Your task to perform on an android device: turn on location history Image 0: 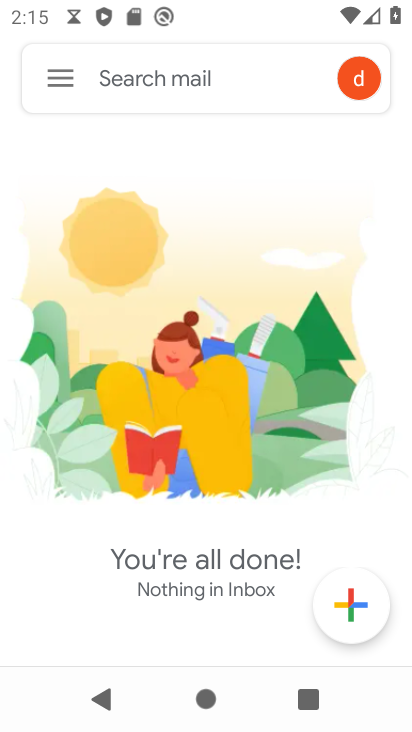
Step 0: press home button
Your task to perform on an android device: turn on location history Image 1: 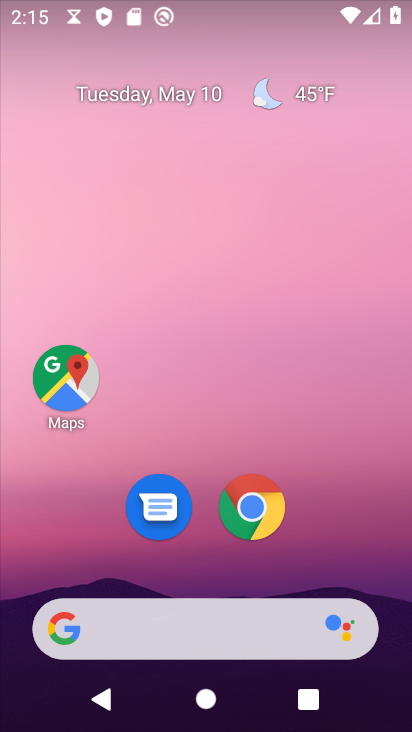
Step 1: drag from (312, 546) to (160, 192)
Your task to perform on an android device: turn on location history Image 2: 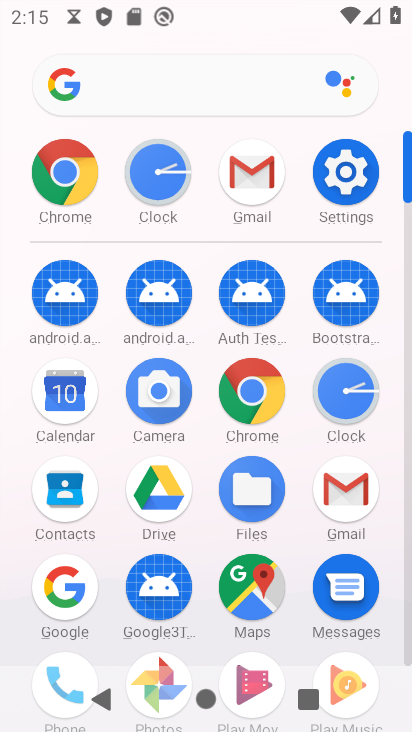
Step 2: click (345, 170)
Your task to perform on an android device: turn on location history Image 3: 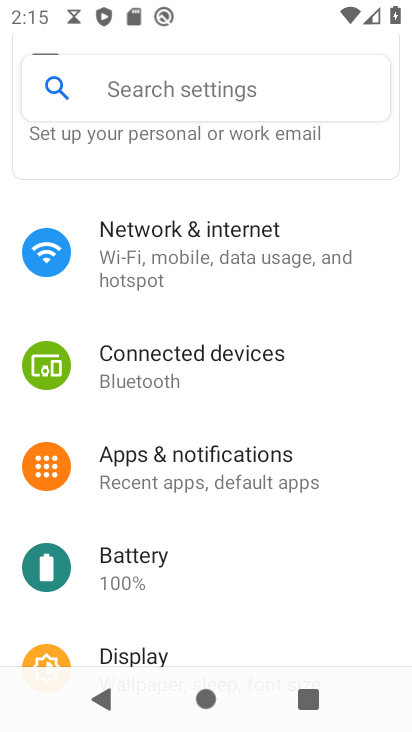
Step 3: drag from (202, 628) to (196, 212)
Your task to perform on an android device: turn on location history Image 4: 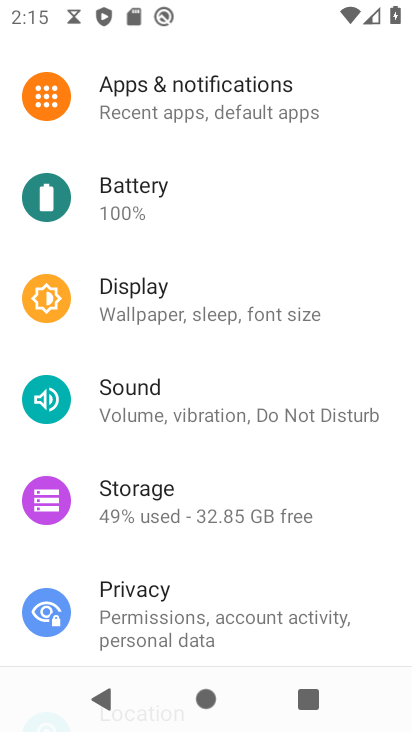
Step 4: drag from (204, 574) to (204, 255)
Your task to perform on an android device: turn on location history Image 5: 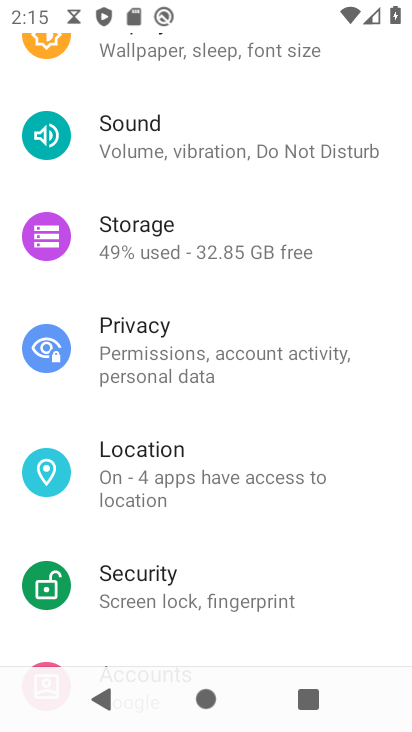
Step 5: click (174, 462)
Your task to perform on an android device: turn on location history Image 6: 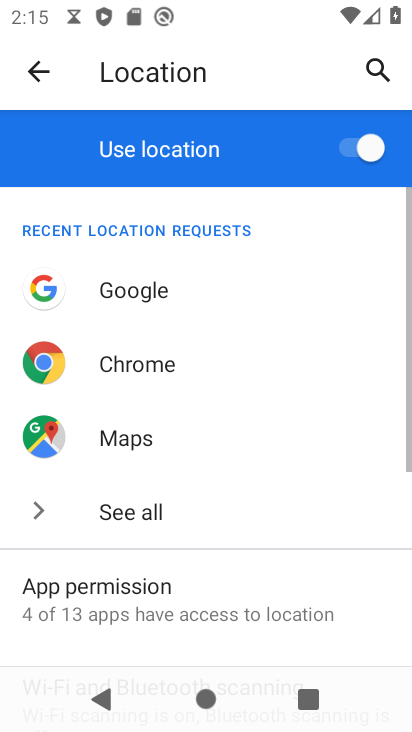
Step 6: drag from (223, 626) to (245, 342)
Your task to perform on an android device: turn on location history Image 7: 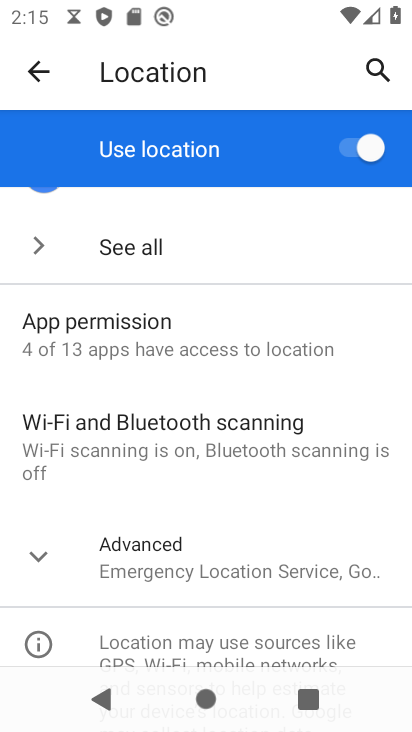
Step 7: click (122, 559)
Your task to perform on an android device: turn on location history Image 8: 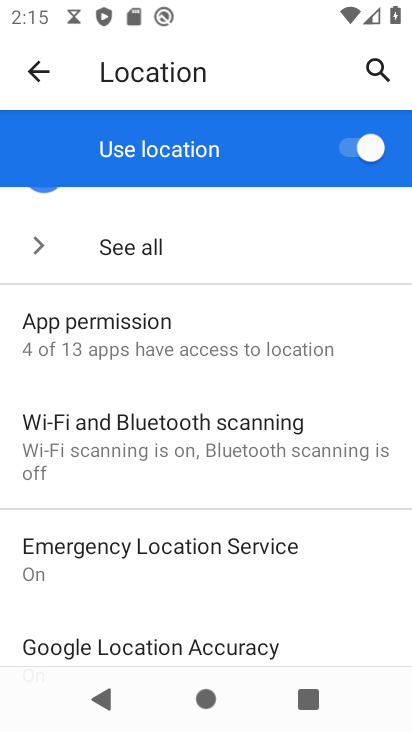
Step 8: drag from (164, 630) to (180, 405)
Your task to perform on an android device: turn on location history Image 9: 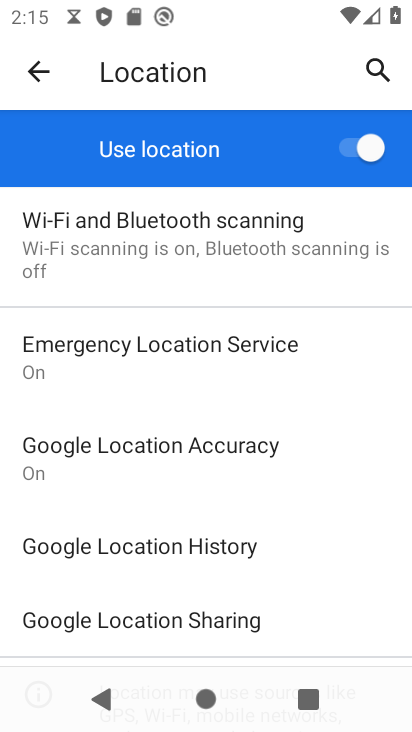
Step 9: click (170, 549)
Your task to perform on an android device: turn on location history Image 10: 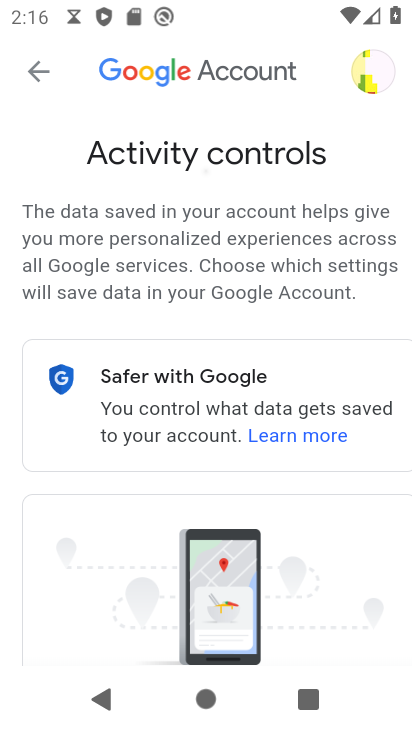
Step 10: task complete